Your task to perform on an android device: Do I have any events tomorrow? Image 0: 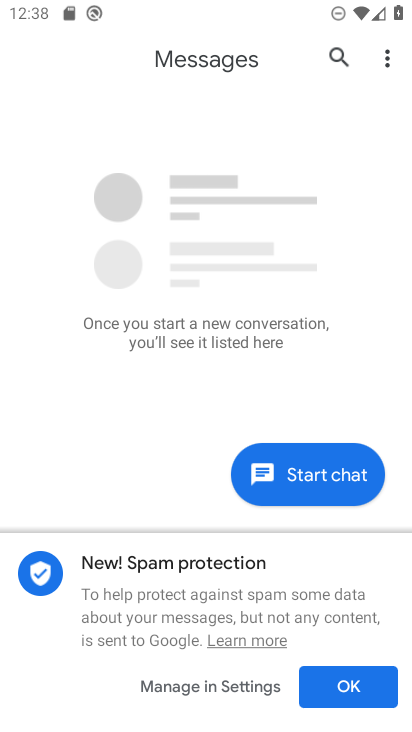
Step 0: press home button
Your task to perform on an android device: Do I have any events tomorrow? Image 1: 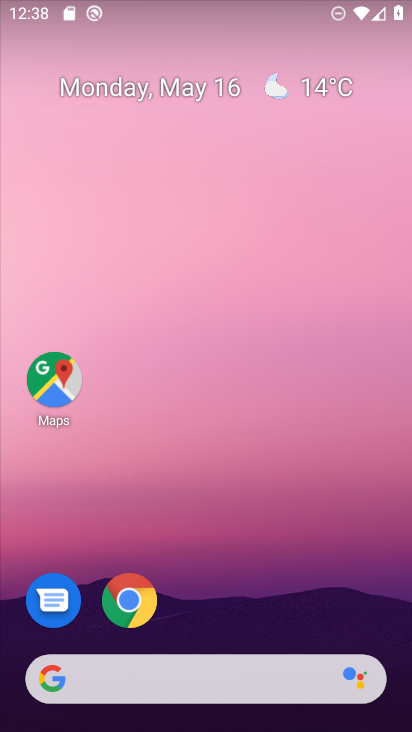
Step 1: drag from (216, 634) to (272, 0)
Your task to perform on an android device: Do I have any events tomorrow? Image 2: 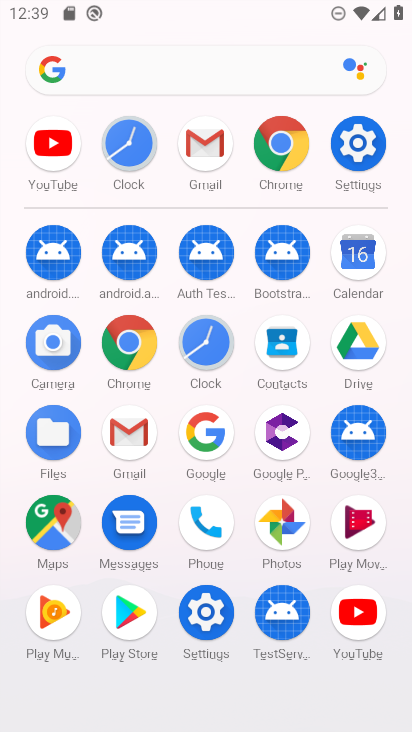
Step 2: click (356, 131)
Your task to perform on an android device: Do I have any events tomorrow? Image 3: 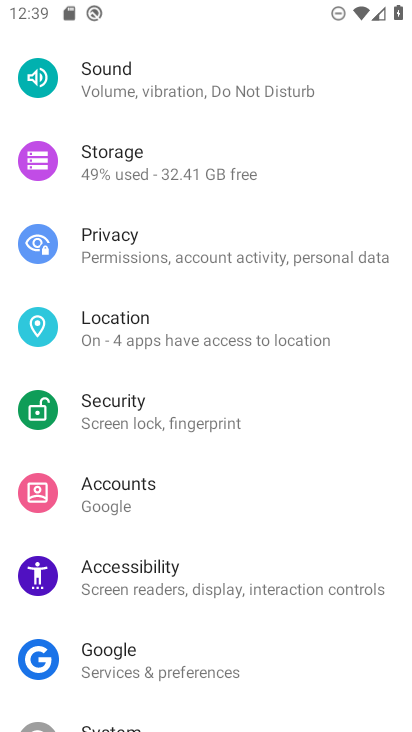
Step 3: press home button
Your task to perform on an android device: Do I have any events tomorrow? Image 4: 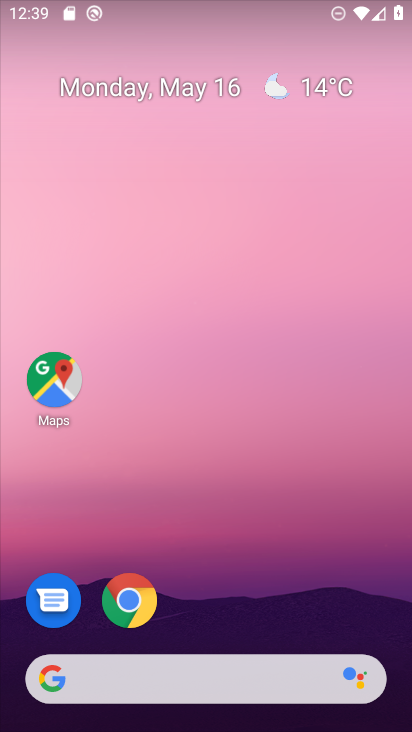
Step 4: drag from (209, 625) to (225, 29)
Your task to perform on an android device: Do I have any events tomorrow? Image 5: 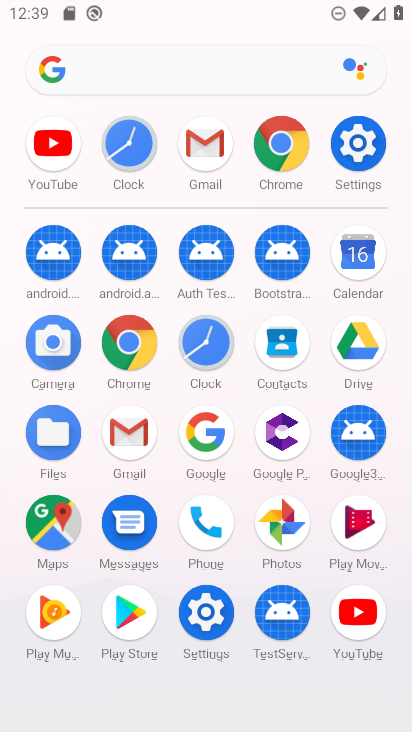
Step 5: click (355, 247)
Your task to perform on an android device: Do I have any events tomorrow? Image 6: 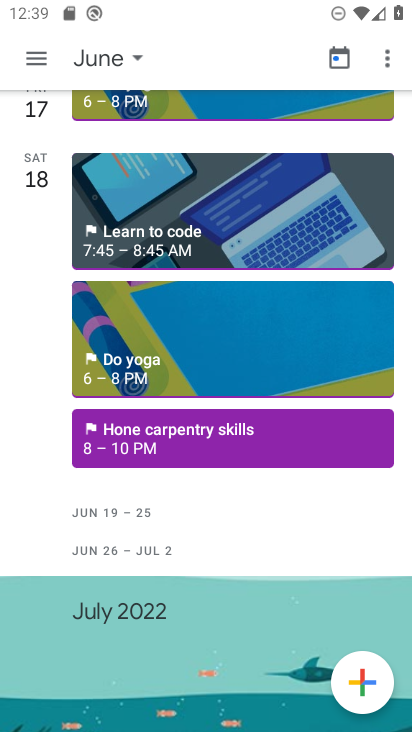
Step 6: click (35, 58)
Your task to perform on an android device: Do I have any events tomorrow? Image 7: 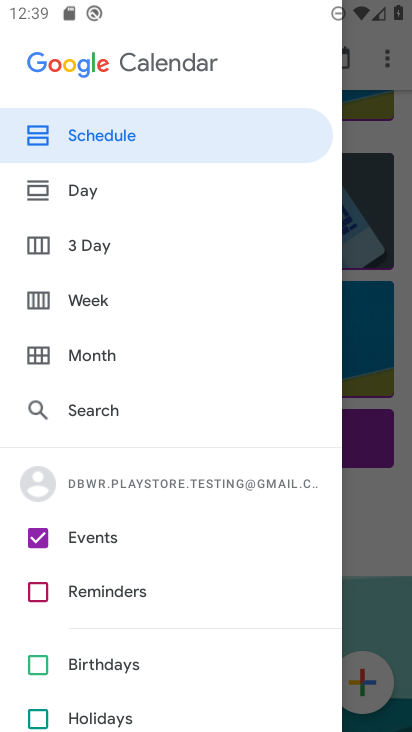
Step 7: click (61, 184)
Your task to perform on an android device: Do I have any events tomorrow? Image 8: 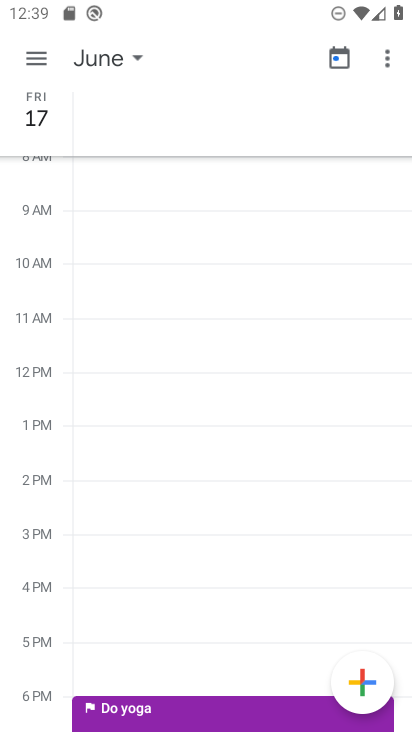
Step 8: click (133, 58)
Your task to perform on an android device: Do I have any events tomorrow? Image 9: 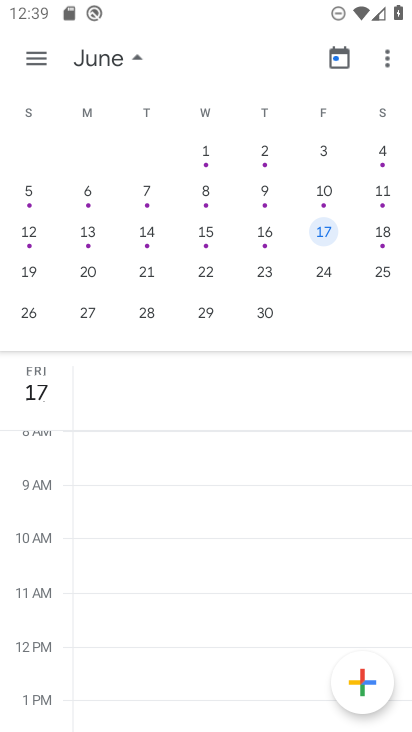
Step 9: drag from (43, 218) to (387, 233)
Your task to perform on an android device: Do I have any events tomorrow? Image 10: 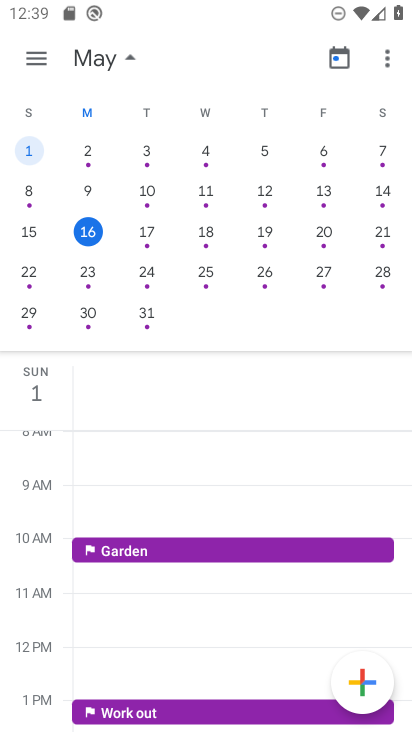
Step 10: click (93, 226)
Your task to perform on an android device: Do I have any events tomorrow? Image 11: 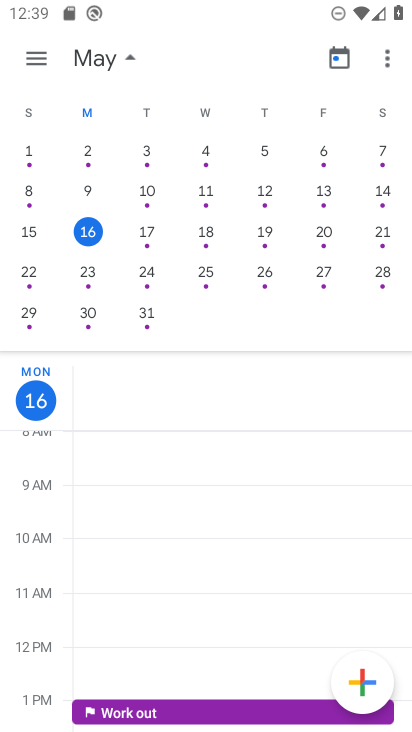
Step 11: click (129, 51)
Your task to perform on an android device: Do I have any events tomorrow? Image 12: 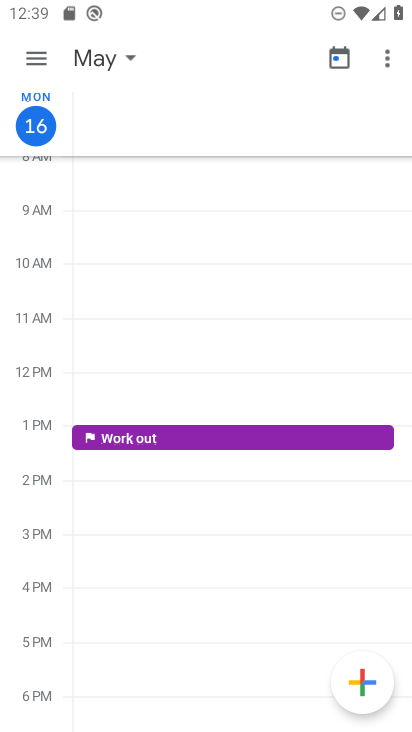
Step 12: drag from (35, 493) to (42, 243)
Your task to perform on an android device: Do I have any events tomorrow? Image 13: 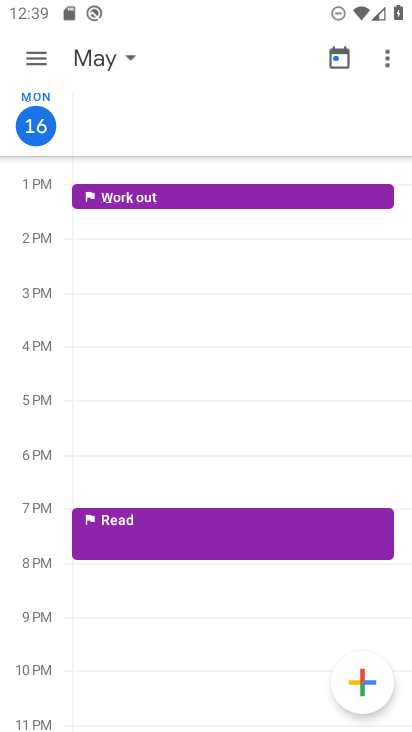
Step 13: click (47, 177)
Your task to perform on an android device: Do I have any events tomorrow? Image 14: 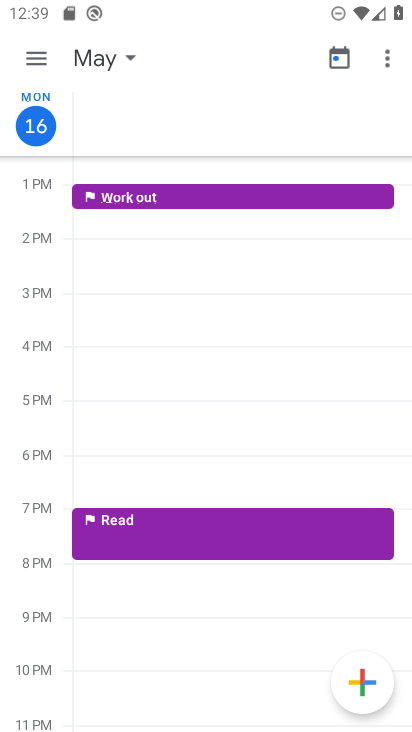
Step 14: task complete